Your task to perform on an android device: Open Reddit.com Image 0: 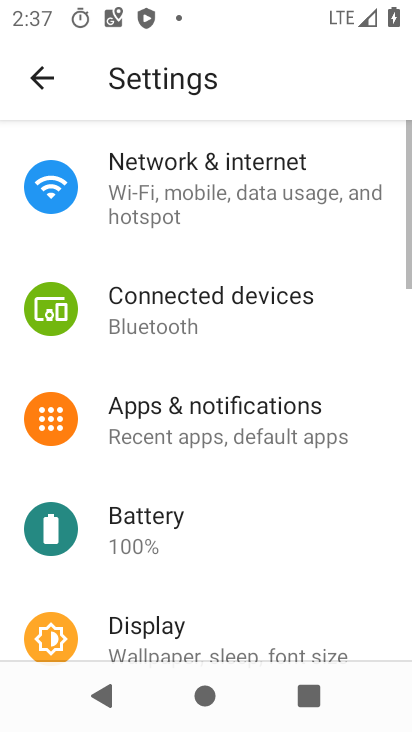
Step 0: press home button
Your task to perform on an android device: Open Reddit.com Image 1: 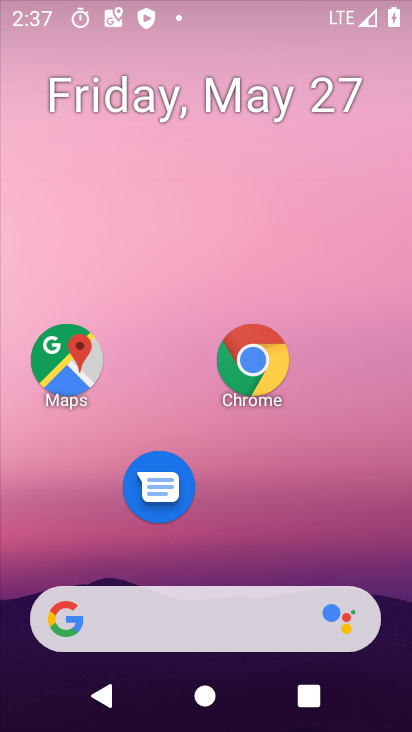
Step 1: drag from (270, 512) to (331, 70)
Your task to perform on an android device: Open Reddit.com Image 2: 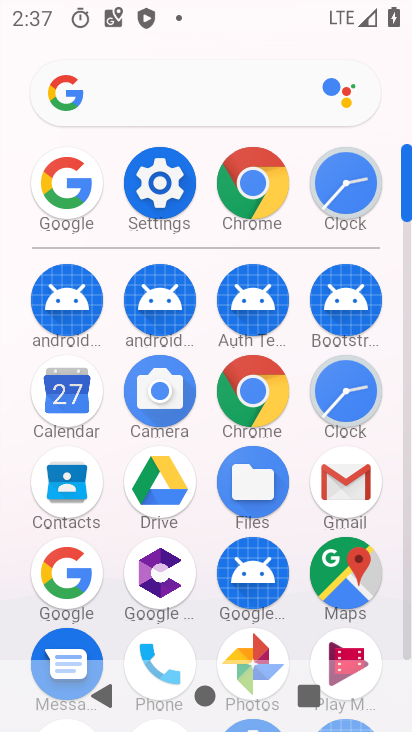
Step 2: drag from (304, 529) to (299, 419)
Your task to perform on an android device: Open Reddit.com Image 3: 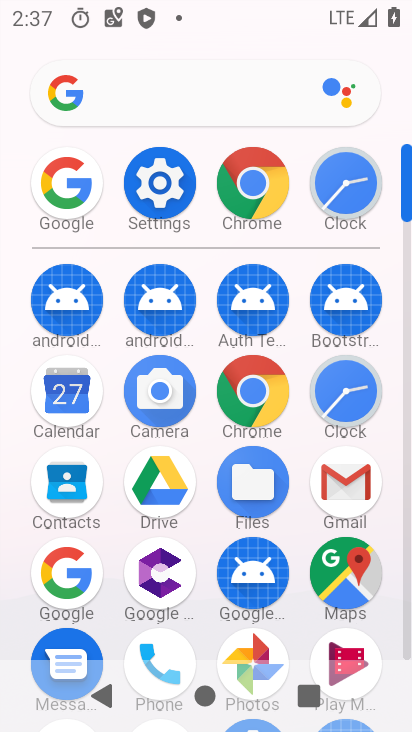
Step 3: click (61, 179)
Your task to perform on an android device: Open Reddit.com Image 4: 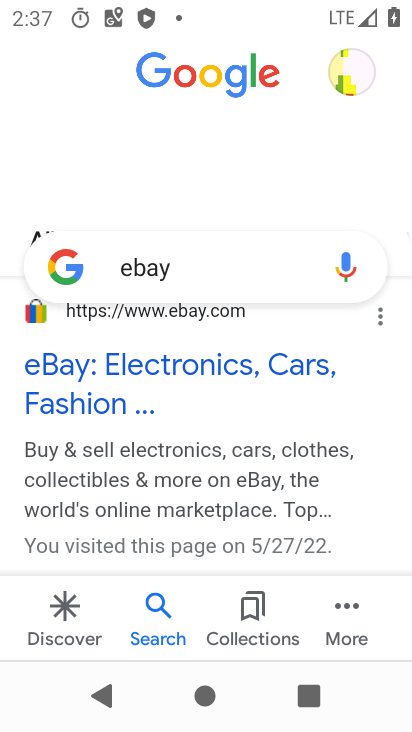
Step 4: click (246, 261)
Your task to perform on an android device: Open Reddit.com Image 5: 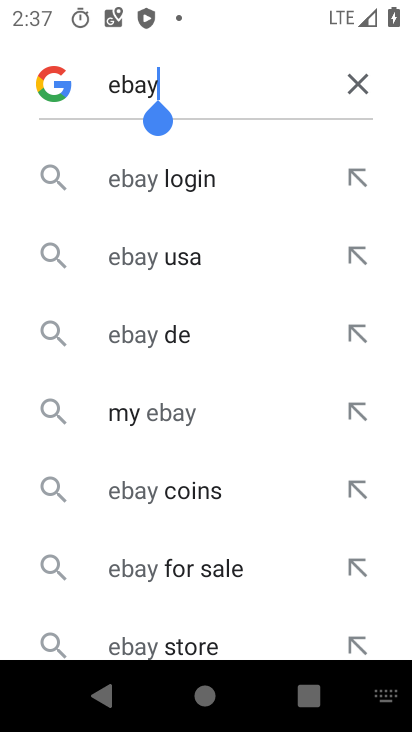
Step 5: click (354, 84)
Your task to perform on an android device: Open Reddit.com Image 6: 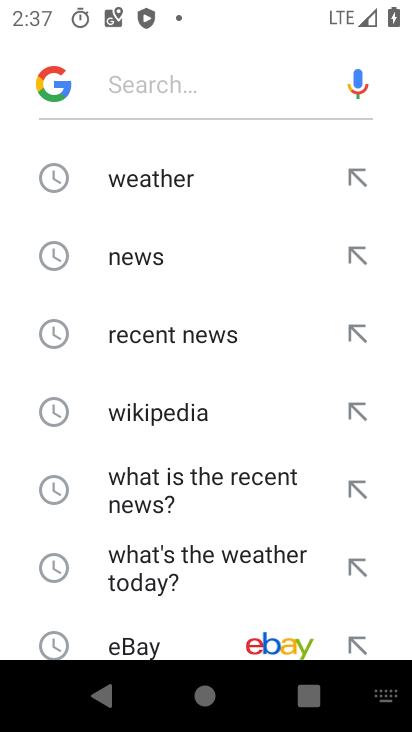
Step 6: type "reddit.com"
Your task to perform on an android device: Open Reddit.com Image 7: 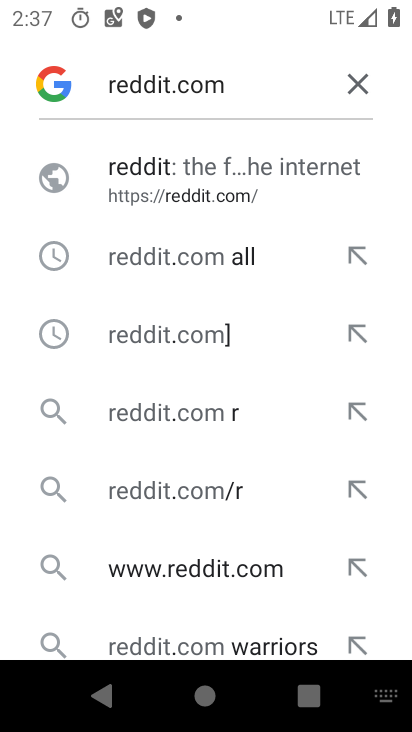
Step 7: click (196, 145)
Your task to perform on an android device: Open Reddit.com Image 8: 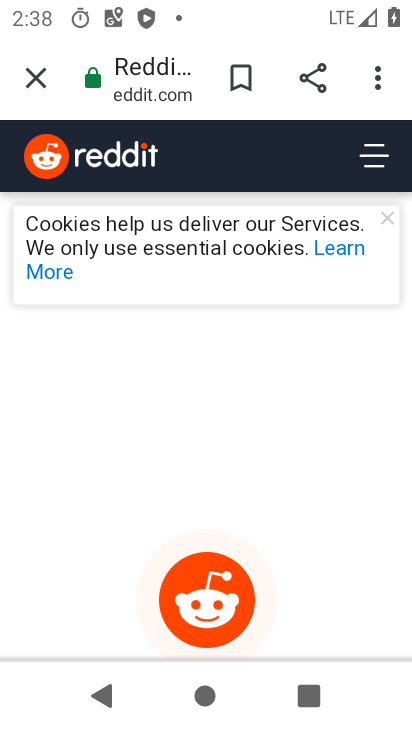
Step 8: task complete